Your task to perform on an android device: find snoozed emails in the gmail app Image 0: 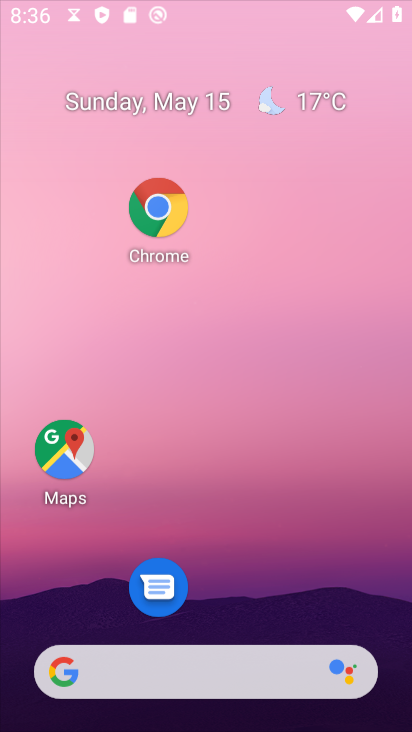
Step 0: click (248, 320)
Your task to perform on an android device: find snoozed emails in the gmail app Image 1: 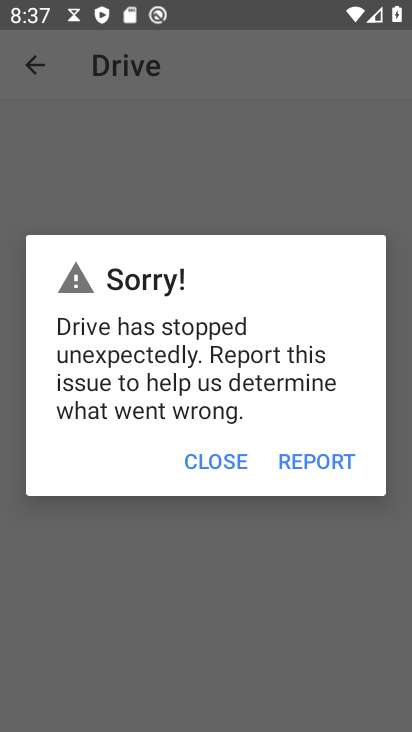
Step 1: click (224, 456)
Your task to perform on an android device: find snoozed emails in the gmail app Image 2: 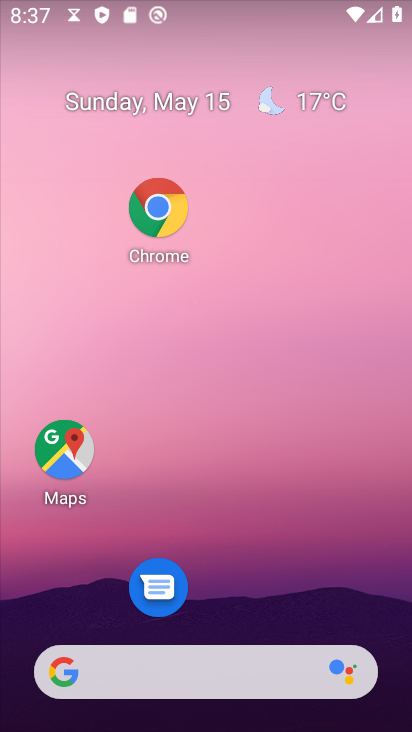
Step 2: drag from (300, 638) to (174, 86)
Your task to perform on an android device: find snoozed emails in the gmail app Image 3: 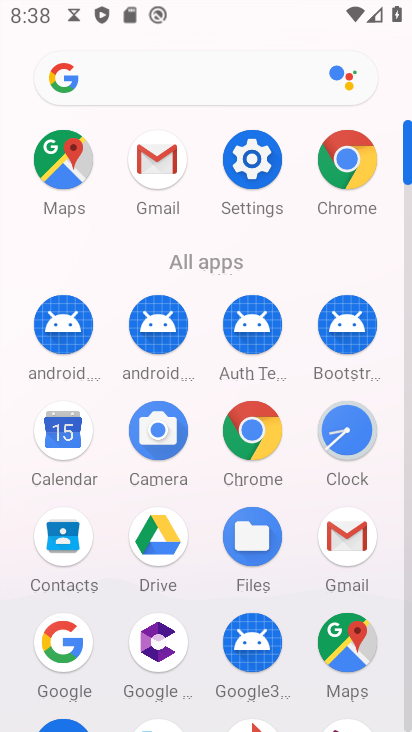
Step 3: click (150, 146)
Your task to perform on an android device: find snoozed emails in the gmail app Image 4: 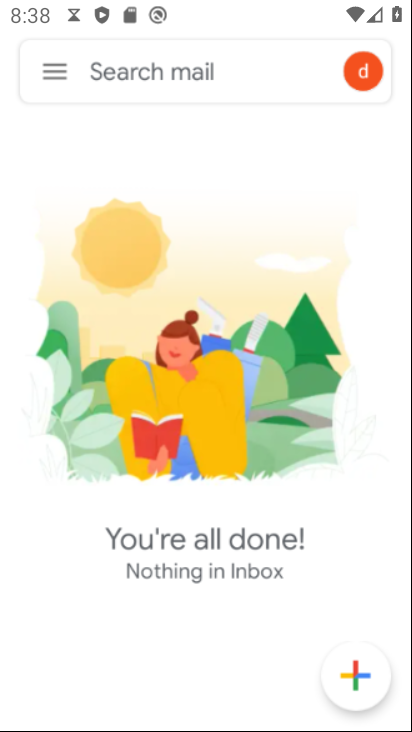
Step 4: click (153, 153)
Your task to perform on an android device: find snoozed emails in the gmail app Image 5: 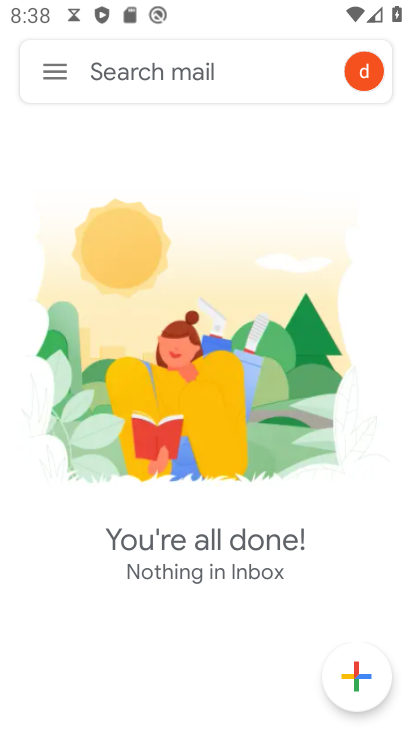
Step 5: click (55, 70)
Your task to perform on an android device: find snoozed emails in the gmail app Image 6: 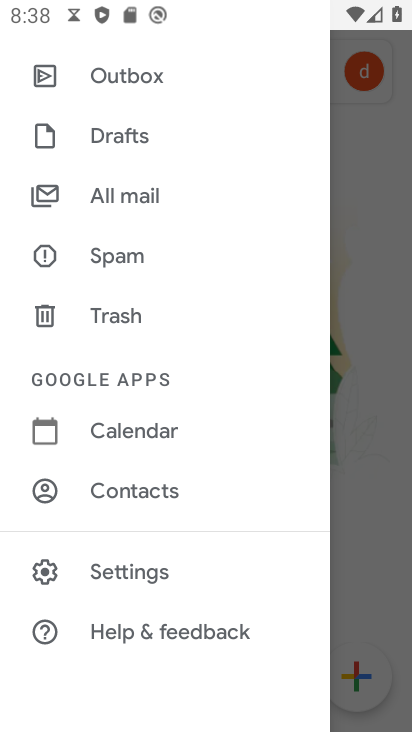
Step 6: click (54, 72)
Your task to perform on an android device: find snoozed emails in the gmail app Image 7: 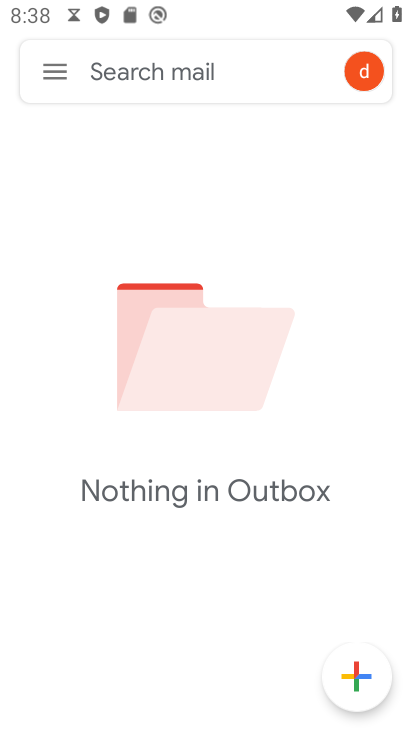
Step 7: click (84, 208)
Your task to perform on an android device: find snoozed emails in the gmail app Image 8: 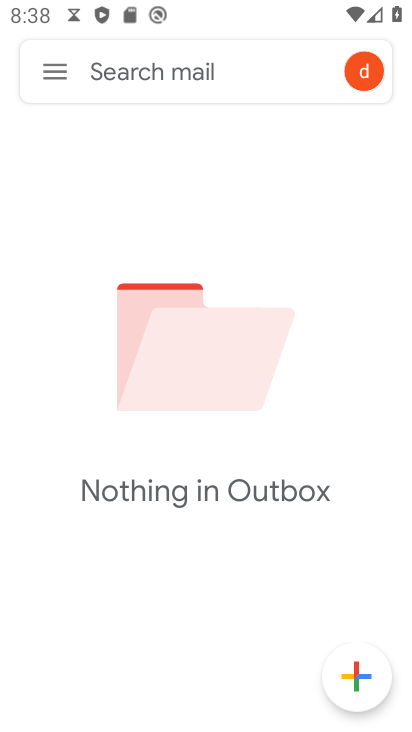
Step 8: click (125, 572)
Your task to perform on an android device: find snoozed emails in the gmail app Image 9: 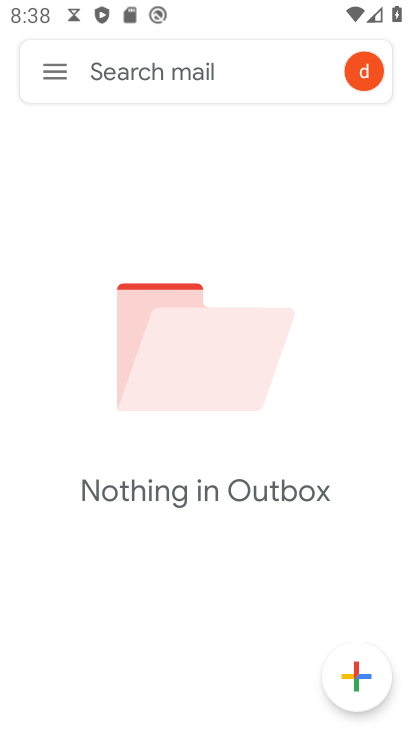
Step 9: task complete